Your task to perform on an android device: Show me the alarms in the clock app Image 0: 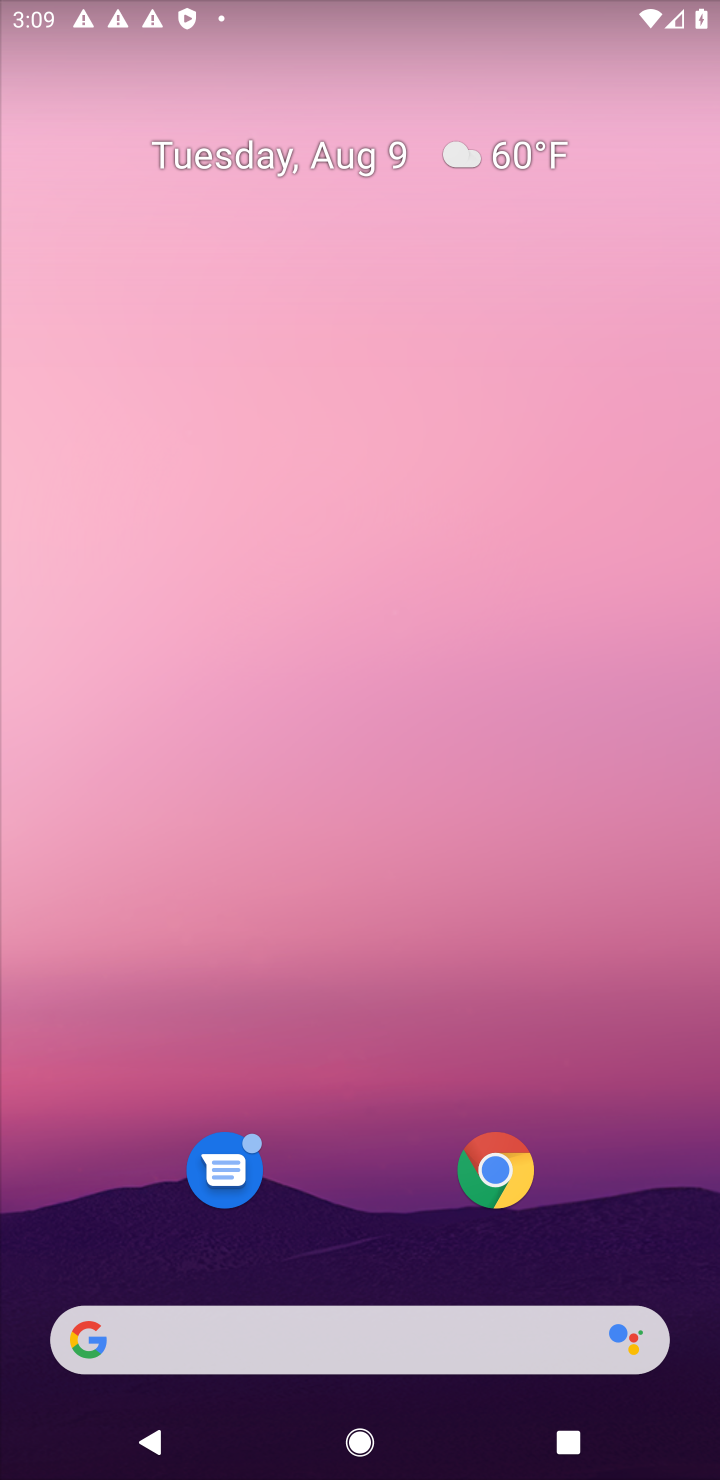
Step 0: press home button
Your task to perform on an android device: Show me the alarms in the clock app Image 1: 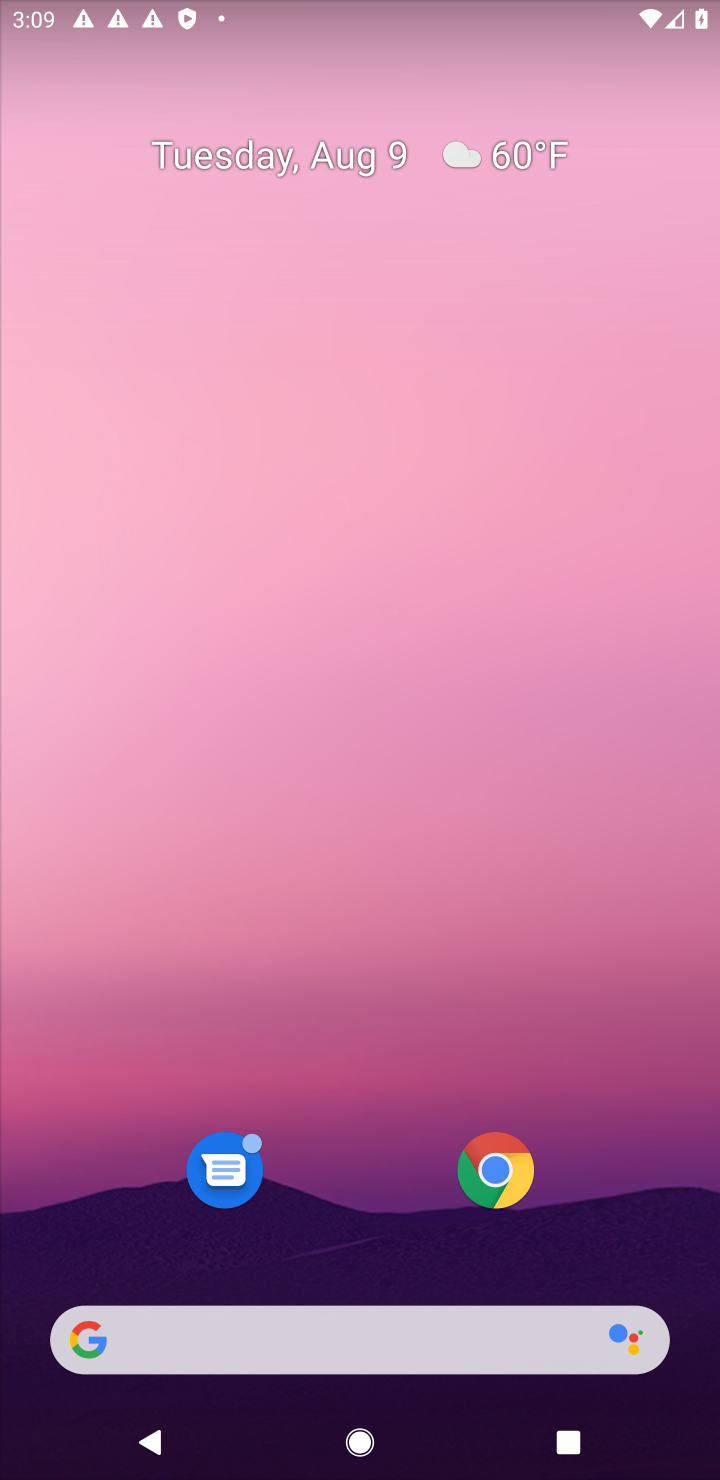
Step 1: drag from (382, 1191) to (336, 156)
Your task to perform on an android device: Show me the alarms in the clock app Image 2: 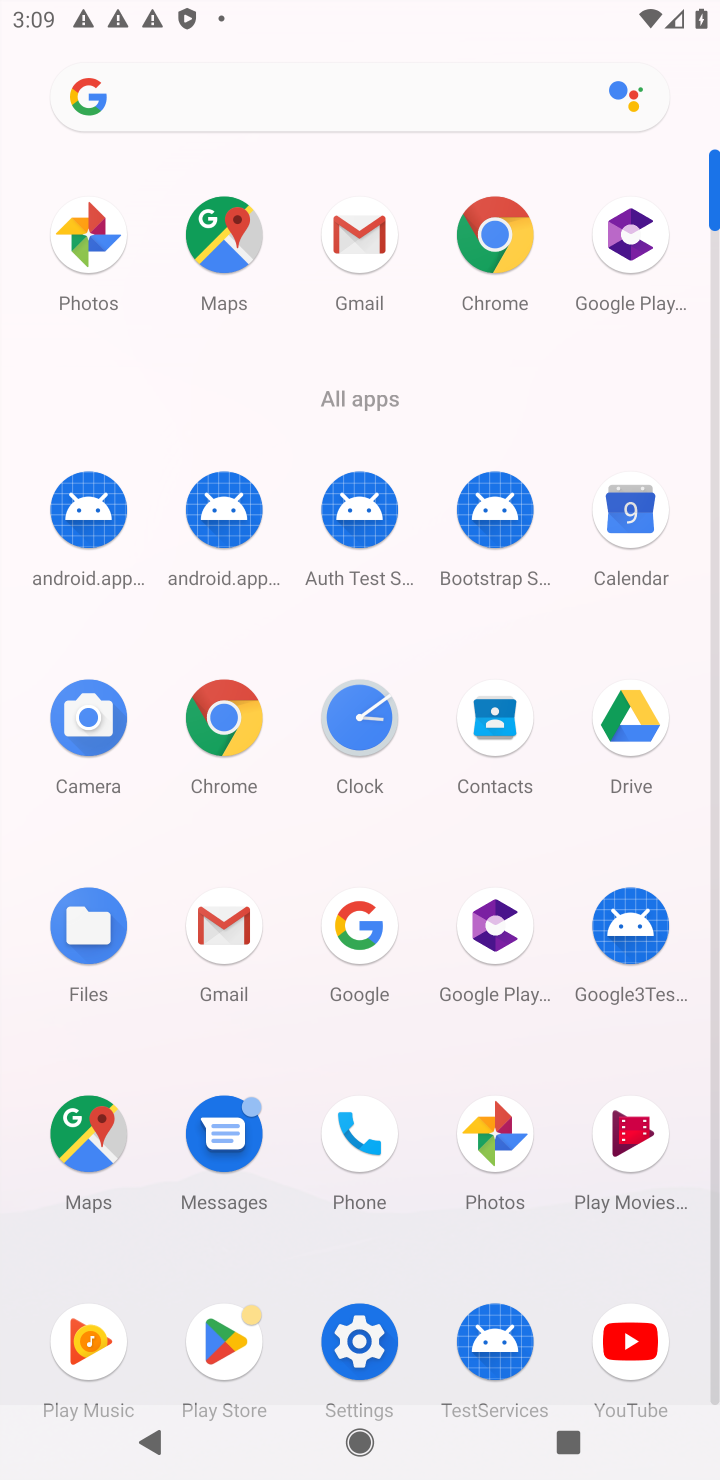
Step 2: click (372, 720)
Your task to perform on an android device: Show me the alarms in the clock app Image 3: 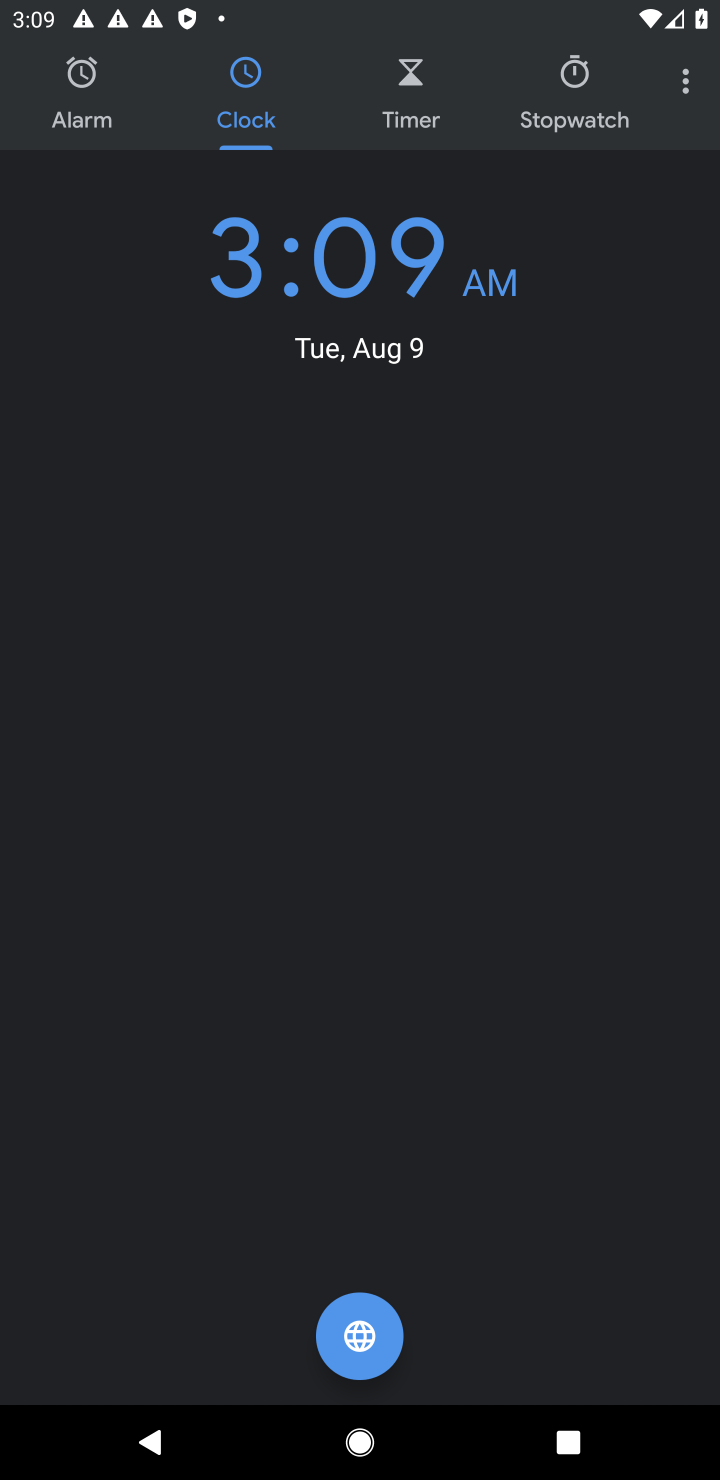
Step 3: click (85, 95)
Your task to perform on an android device: Show me the alarms in the clock app Image 4: 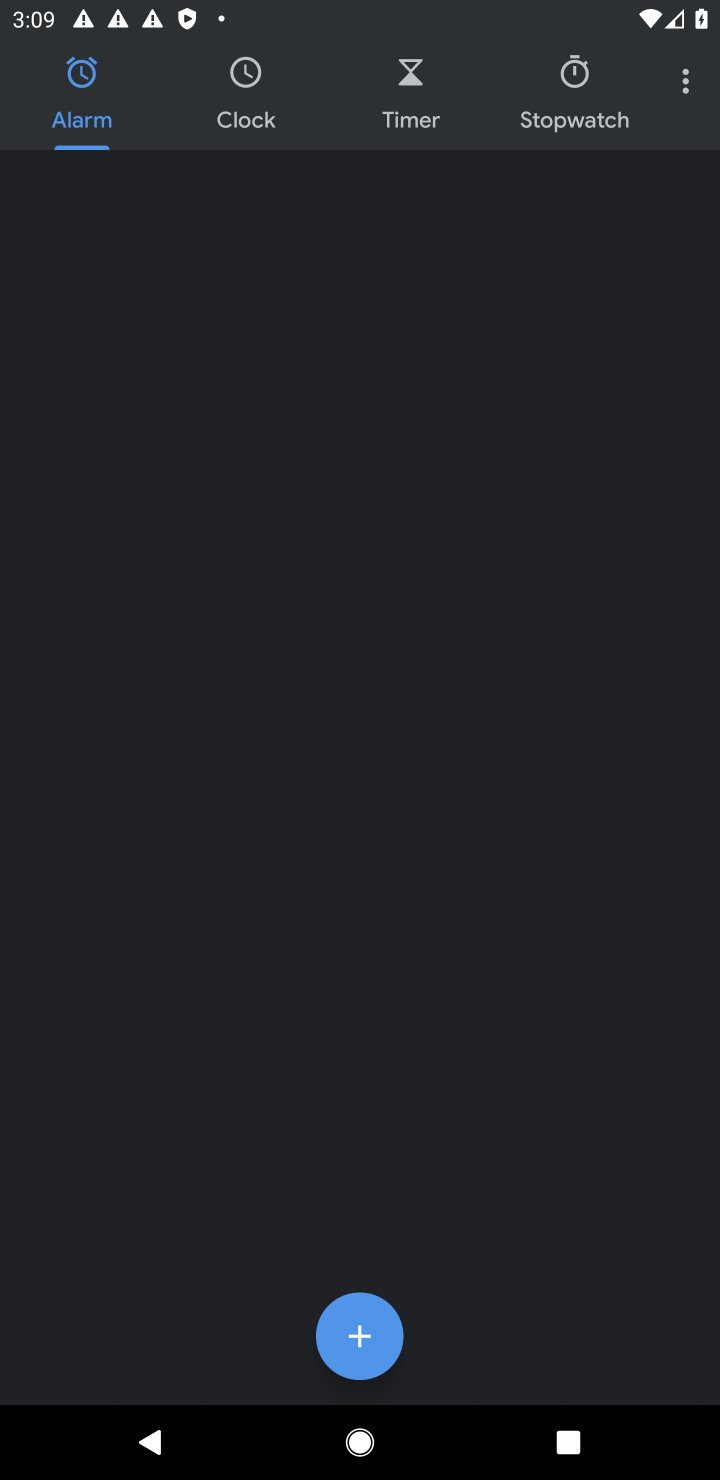
Step 4: task complete